Your task to perform on an android device: Do I have any events today? Image 0: 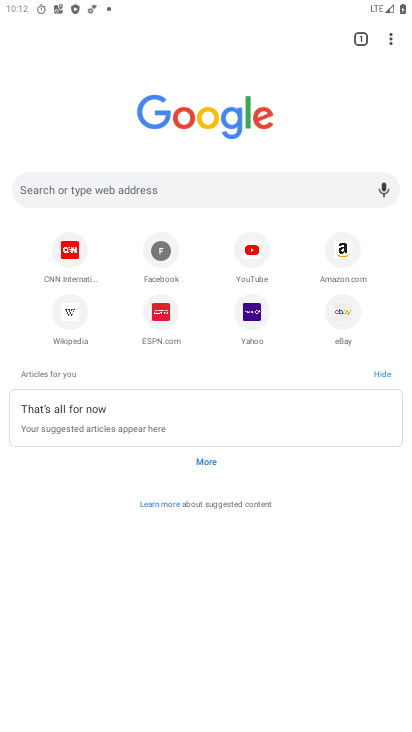
Step 0: press home button
Your task to perform on an android device: Do I have any events today? Image 1: 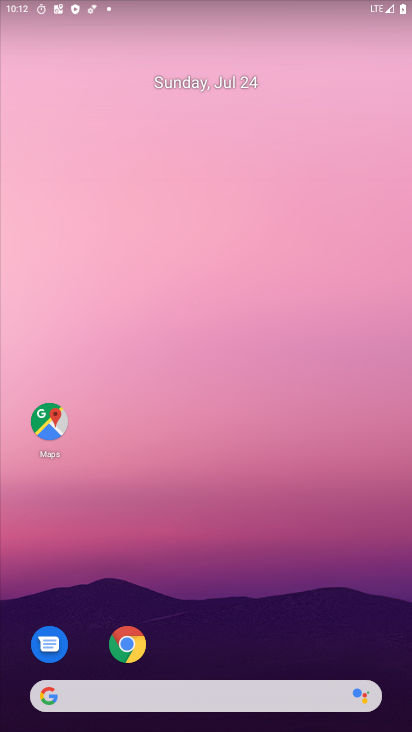
Step 1: drag from (237, 673) to (236, 302)
Your task to perform on an android device: Do I have any events today? Image 2: 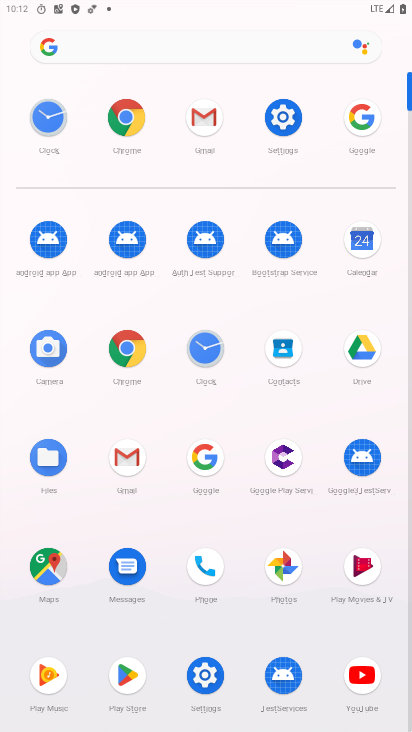
Step 2: click (371, 238)
Your task to perform on an android device: Do I have any events today? Image 3: 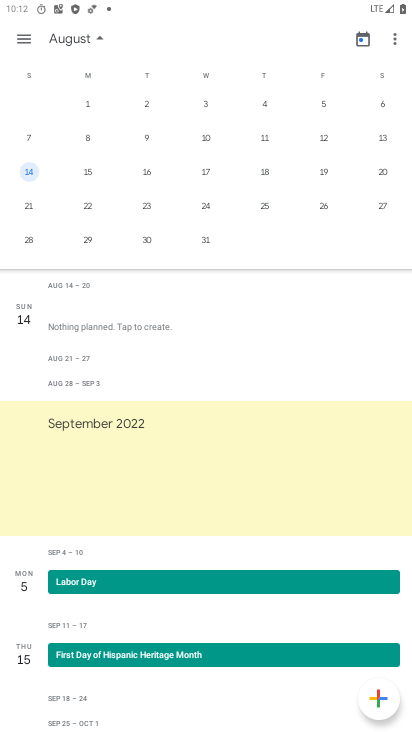
Step 3: drag from (44, 179) to (399, 179)
Your task to perform on an android device: Do I have any events today? Image 4: 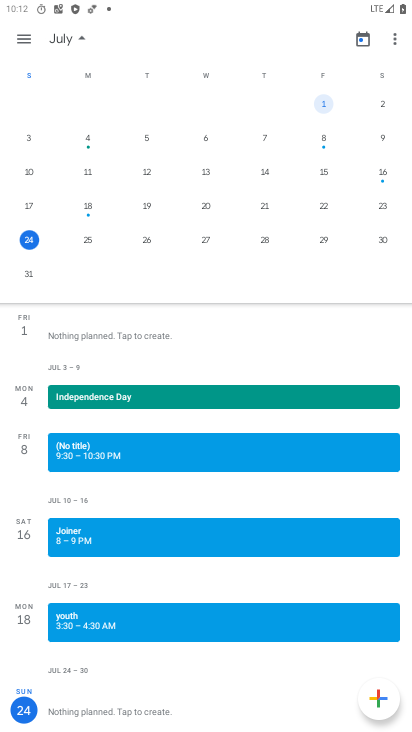
Step 4: click (35, 232)
Your task to perform on an android device: Do I have any events today? Image 5: 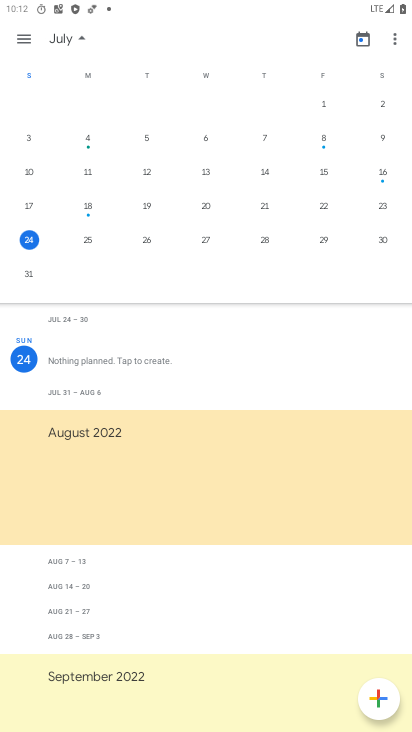
Step 5: task complete